Your task to perform on an android device: Search for pizza restaurants on Maps Image 0: 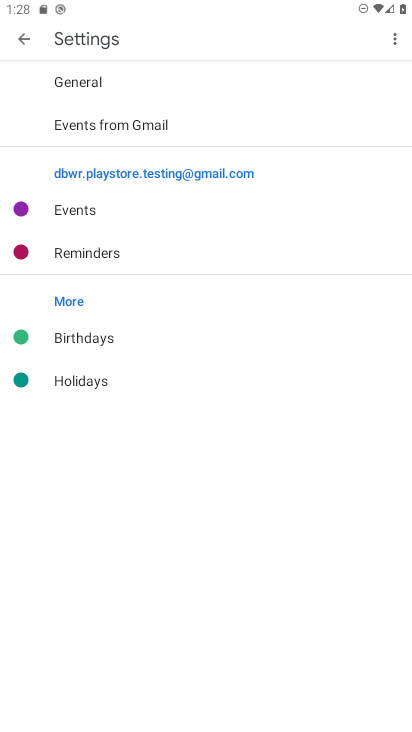
Step 0: press home button
Your task to perform on an android device: Search for pizza restaurants on Maps Image 1: 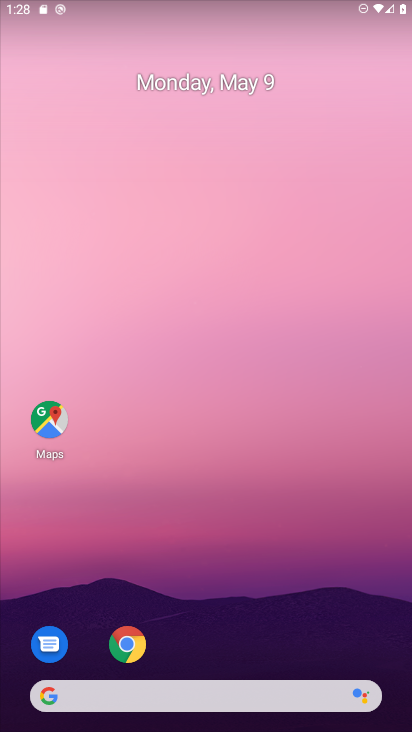
Step 1: click (43, 444)
Your task to perform on an android device: Search for pizza restaurants on Maps Image 2: 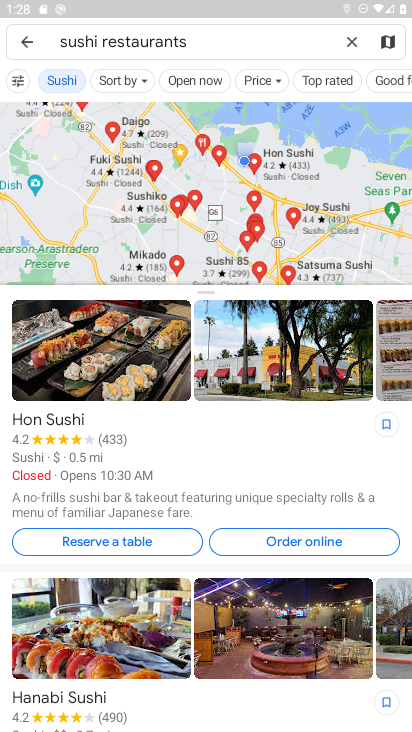
Step 2: click (354, 36)
Your task to perform on an android device: Search for pizza restaurants on Maps Image 3: 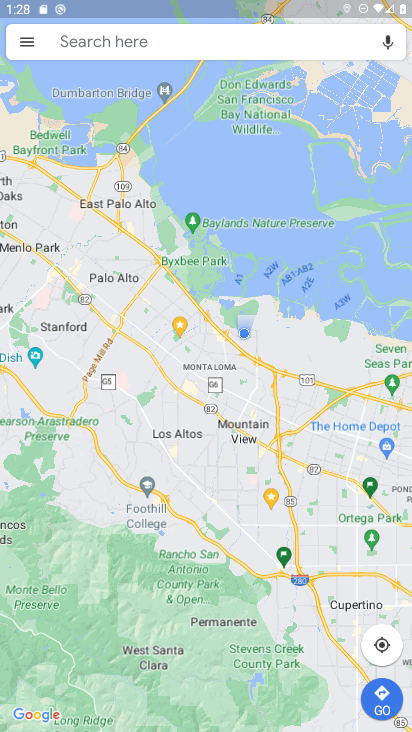
Step 3: click (177, 48)
Your task to perform on an android device: Search for pizza restaurants on Maps Image 4: 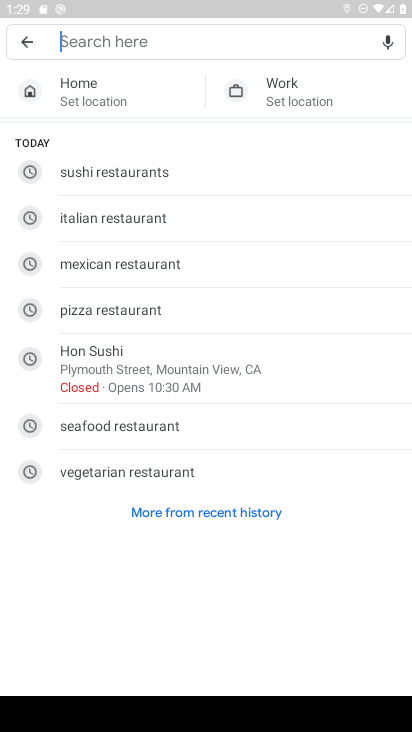
Step 4: type "pizza restaurants"
Your task to perform on an android device: Search for pizza restaurants on Maps Image 5: 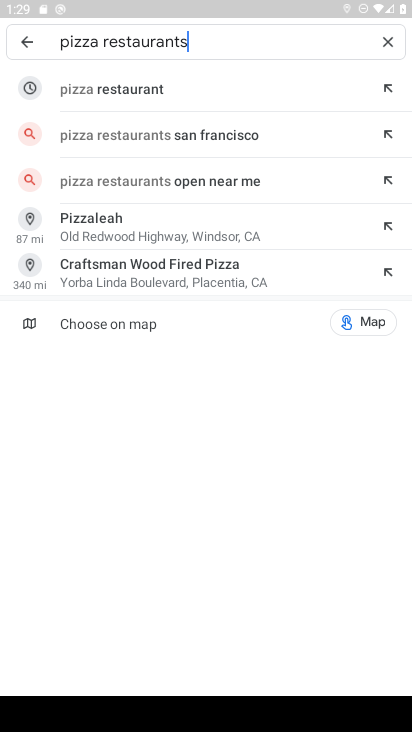
Step 5: click (197, 35)
Your task to perform on an android device: Search for pizza restaurants on Maps Image 6: 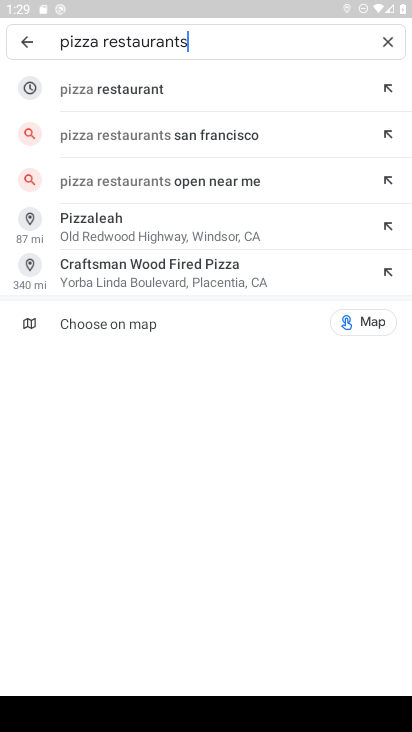
Step 6: click (197, 35)
Your task to perform on an android device: Search for pizza restaurants on Maps Image 7: 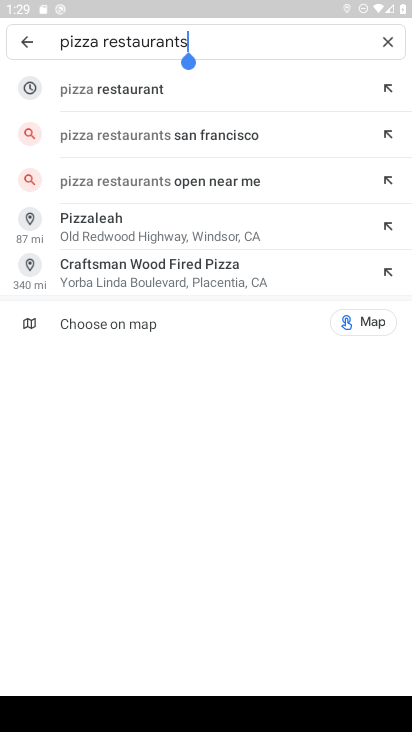
Step 7: click (106, 96)
Your task to perform on an android device: Search for pizza restaurants on Maps Image 8: 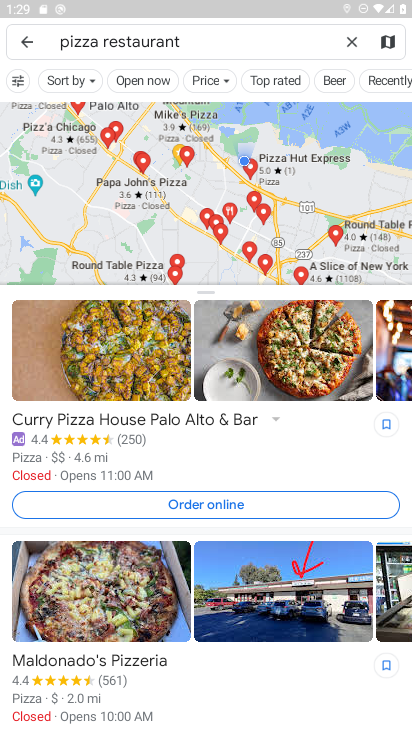
Step 8: task complete